Your task to perform on an android device: Go to settings Image 0: 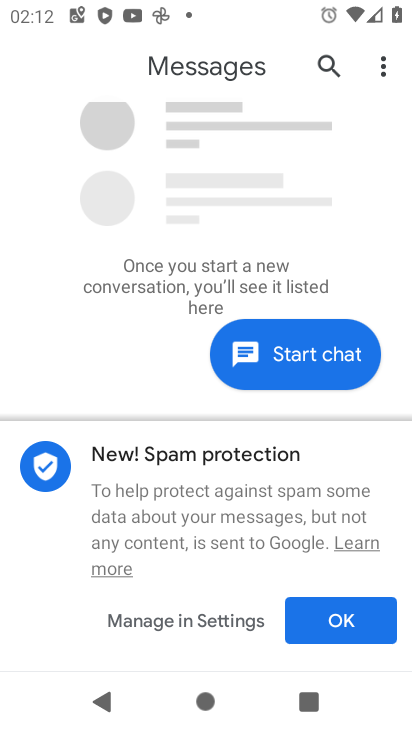
Step 0: press home button
Your task to perform on an android device: Go to settings Image 1: 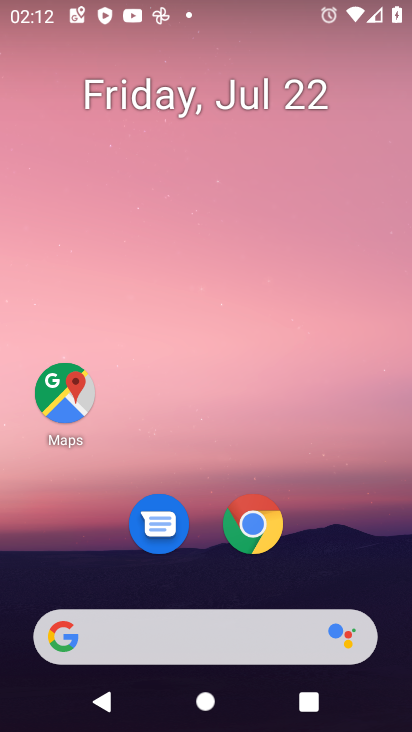
Step 1: drag from (188, 625) to (287, 130)
Your task to perform on an android device: Go to settings Image 2: 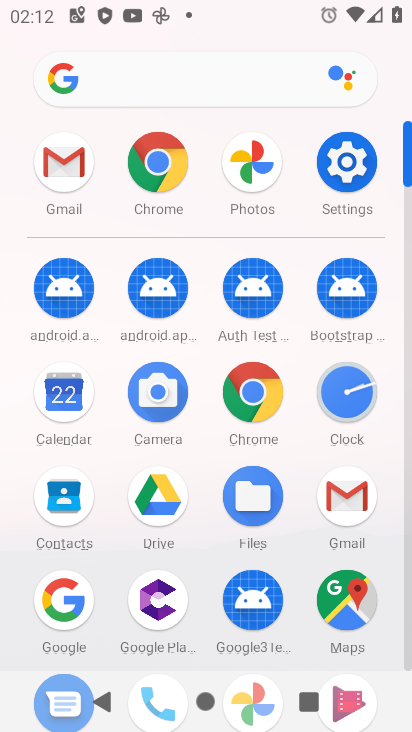
Step 2: click (340, 165)
Your task to perform on an android device: Go to settings Image 3: 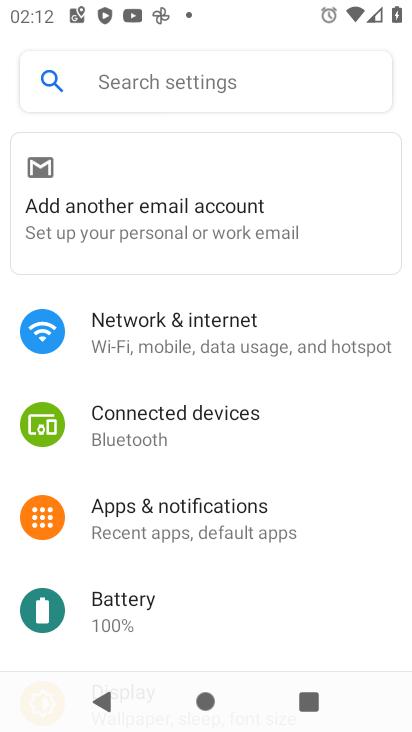
Step 3: task complete